Your task to perform on an android device: Search for dining sets on article.com Image 0: 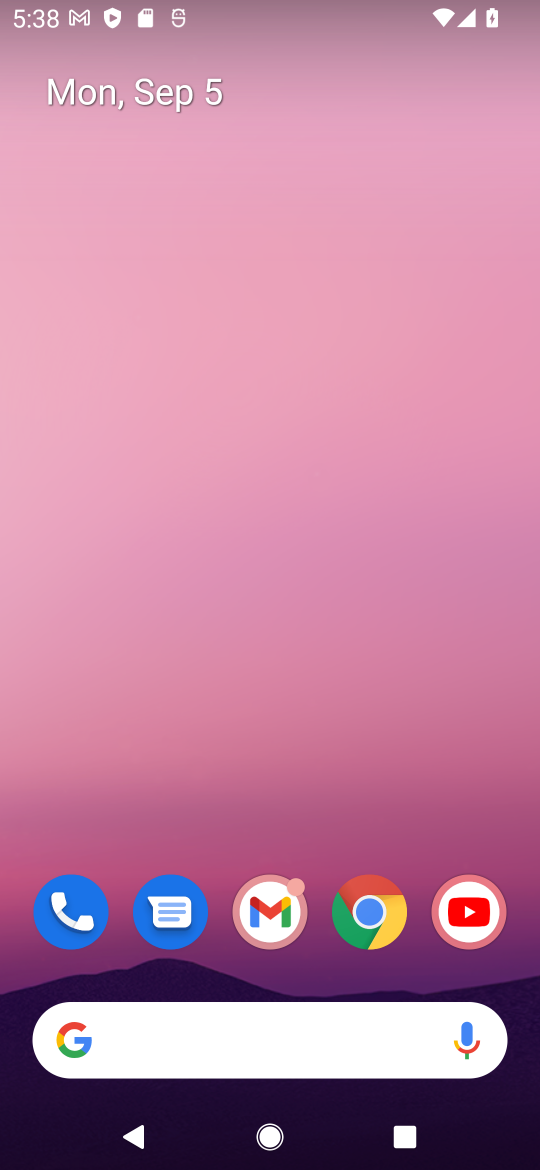
Step 0: click (367, 921)
Your task to perform on an android device: Search for dining sets on article.com Image 1: 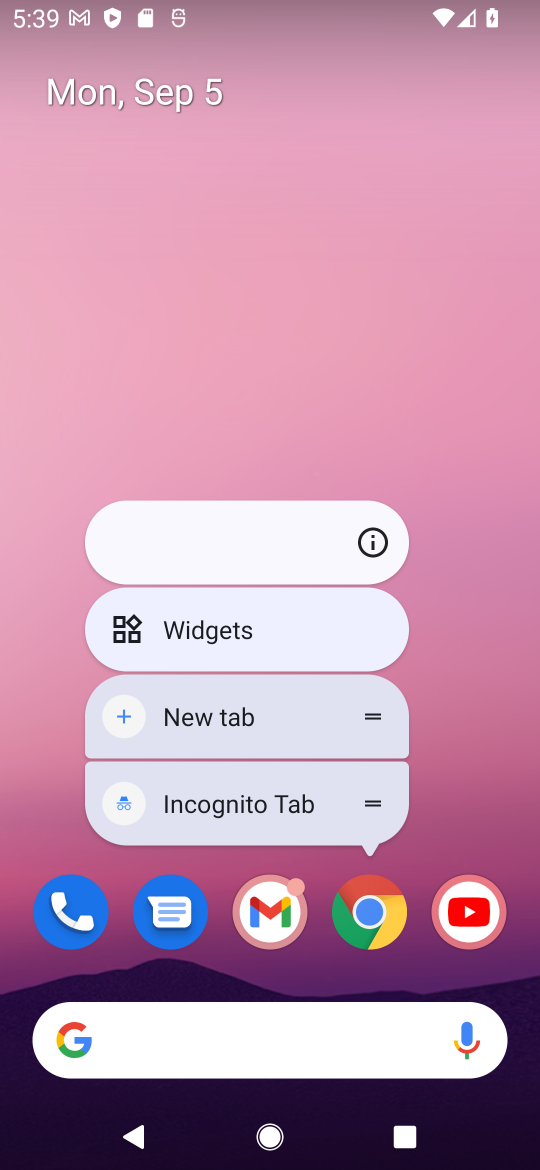
Step 1: click (379, 937)
Your task to perform on an android device: Search for dining sets on article.com Image 2: 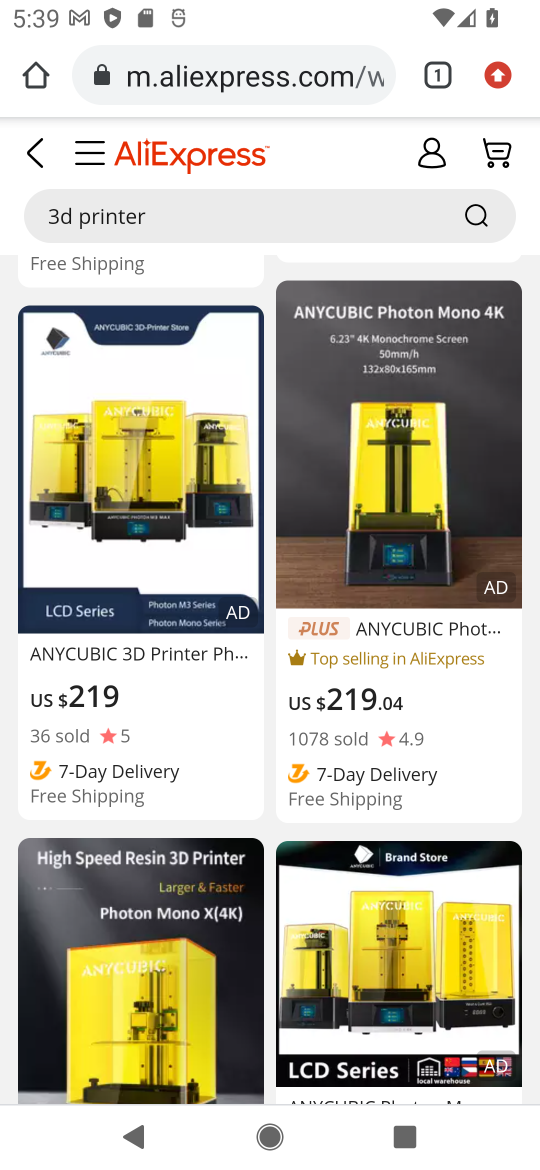
Step 2: click (217, 92)
Your task to perform on an android device: Search for dining sets on article.com Image 3: 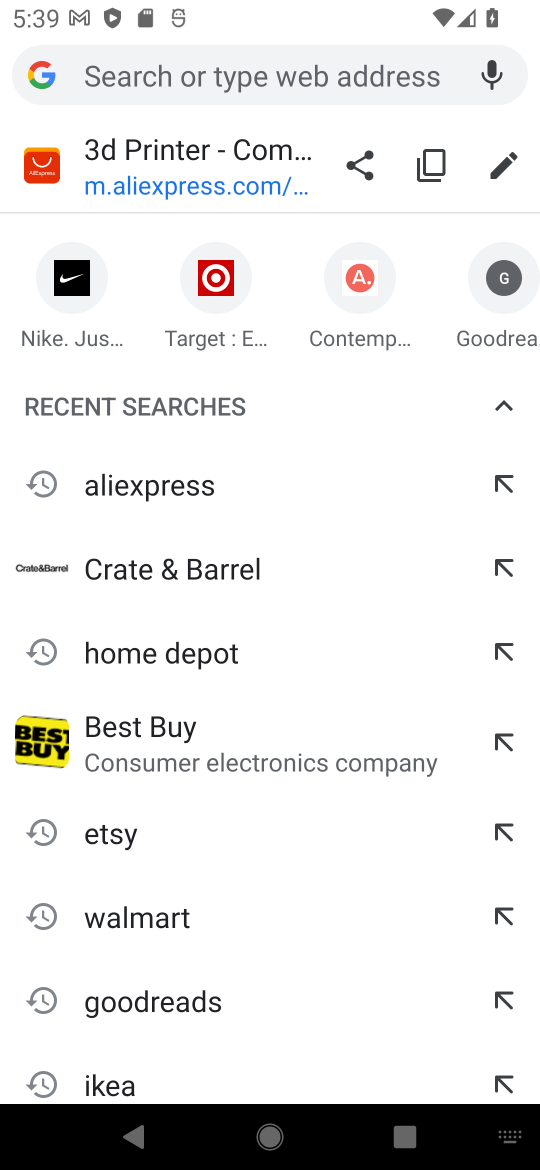
Step 3: type "article.com"
Your task to perform on an android device: Search for dining sets on article.com Image 4: 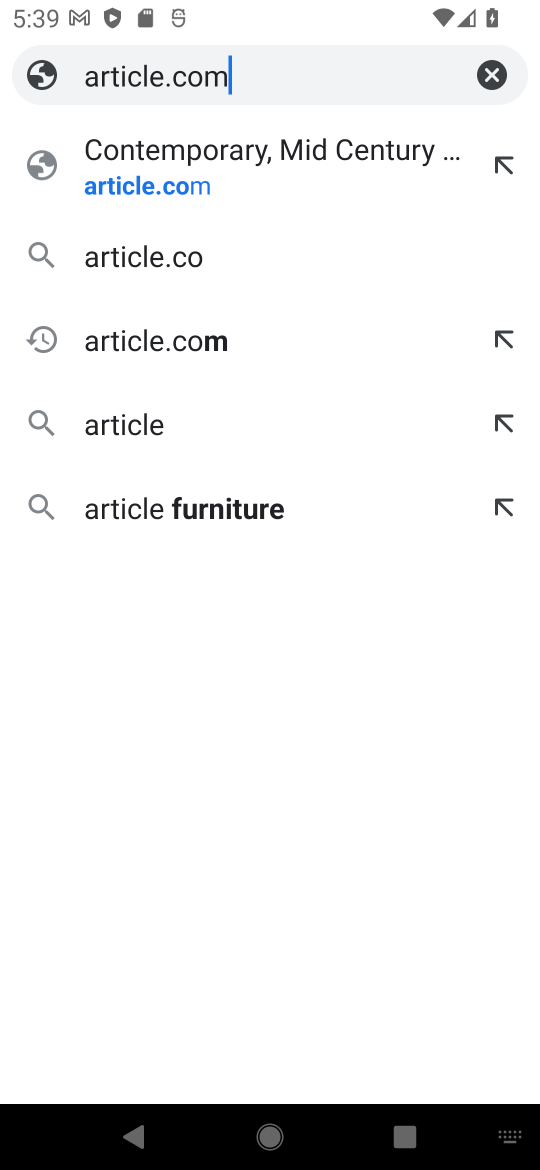
Step 4: type ""
Your task to perform on an android device: Search for dining sets on article.com Image 5: 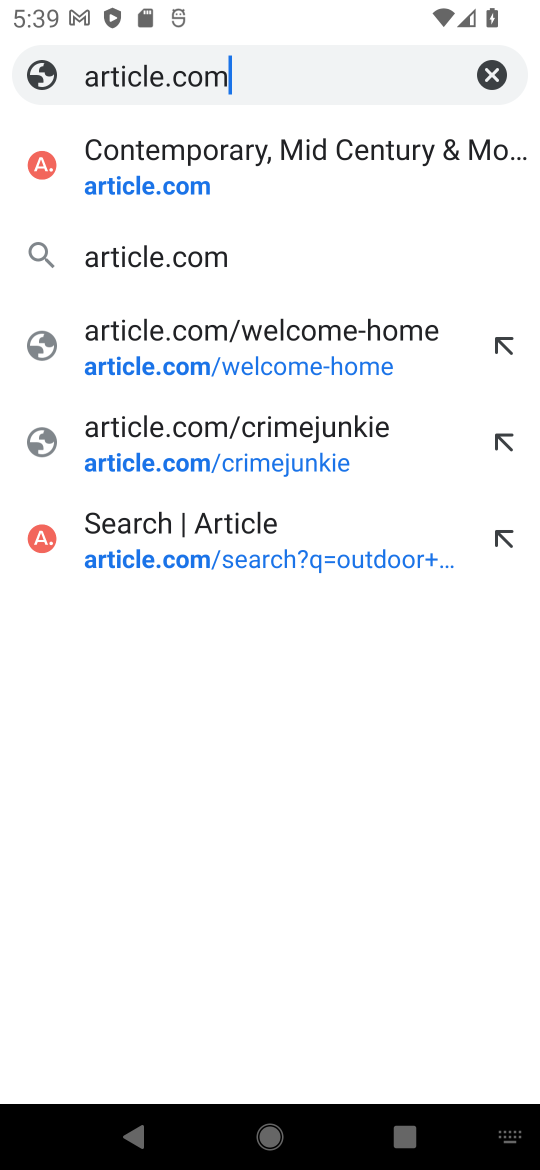
Step 5: press enter
Your task to perform on an android device: Search for dining sets on article.com Image 6: 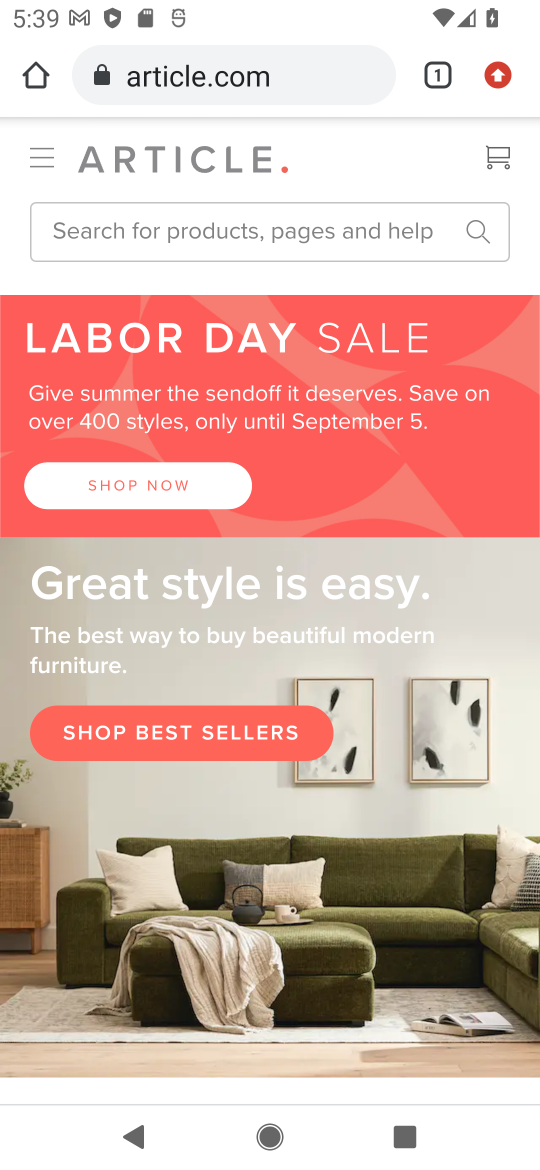
Step 6: click (219, 220)
Your task to perform on an android device: Search for dining sets on article.com Image 7: 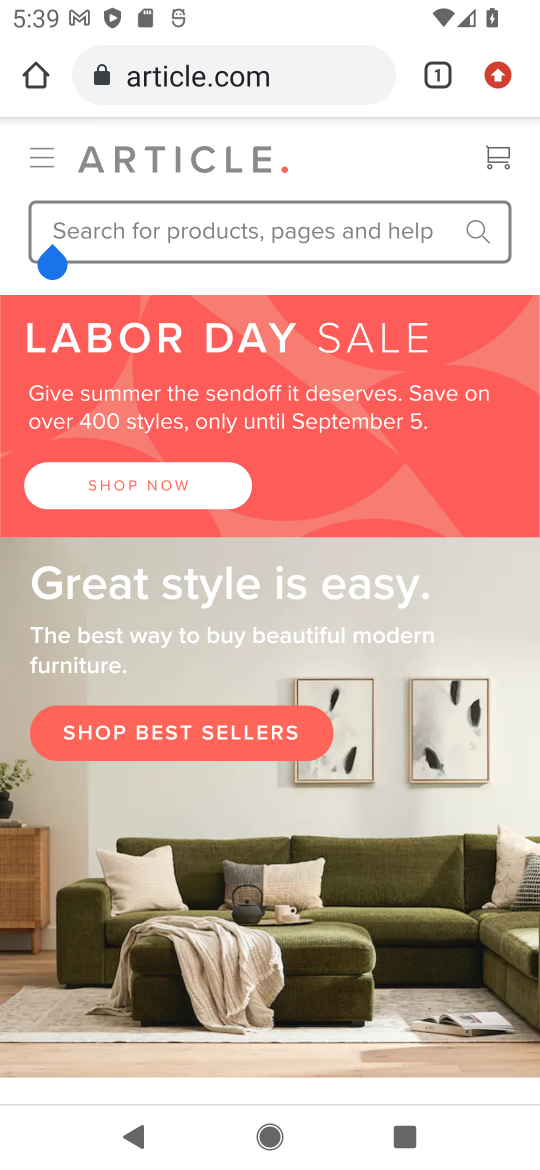
Step 7: type "dining sets"
Your task to perform on an android device: Search for dining sets on article.com Image 8: 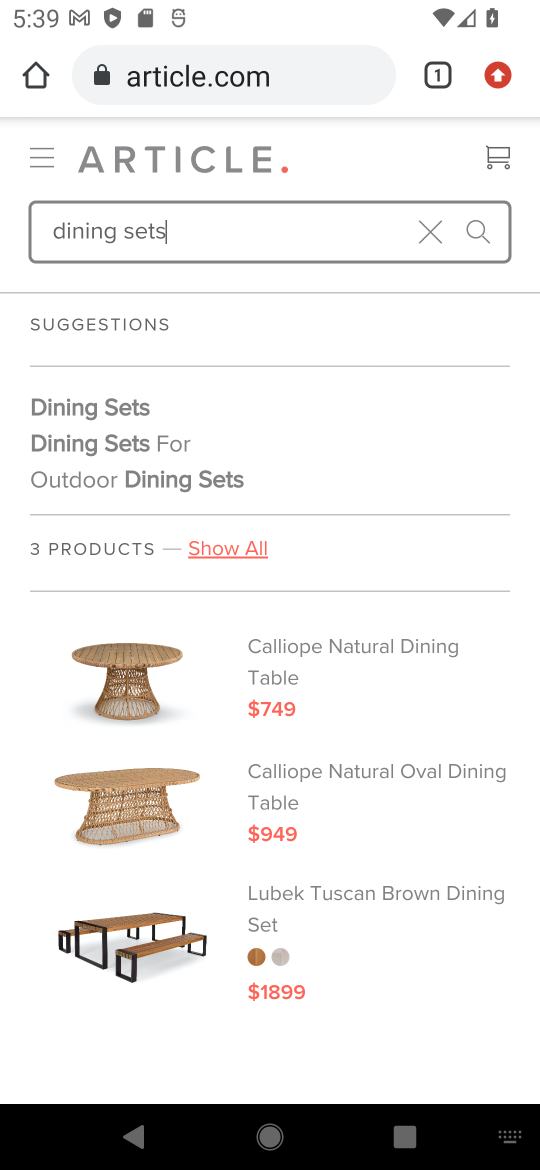
Step 8: task complete